Your task to perform on an android device: Go to notification settings Image 0: 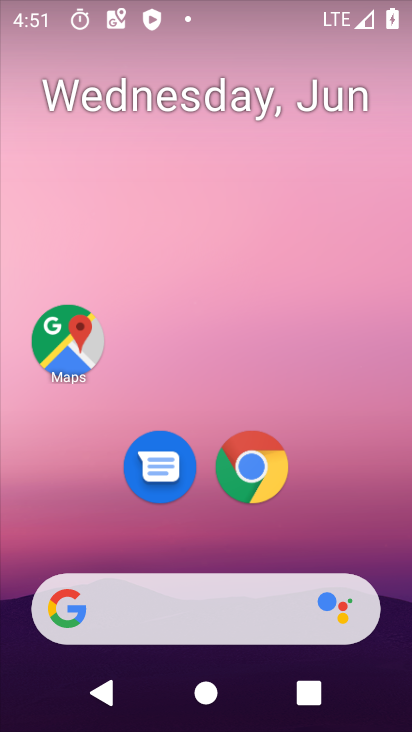
Step 0: drag from (311, 553) to (154, 73)
Your task to perform on an android device: Go to notification settings Image 1: 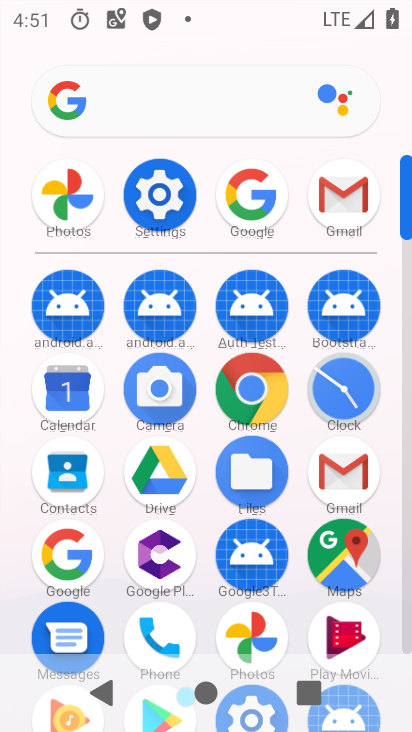
Step 1: click (167, 207)
Your task to perform on an android device: Go to notification settings Image 2: 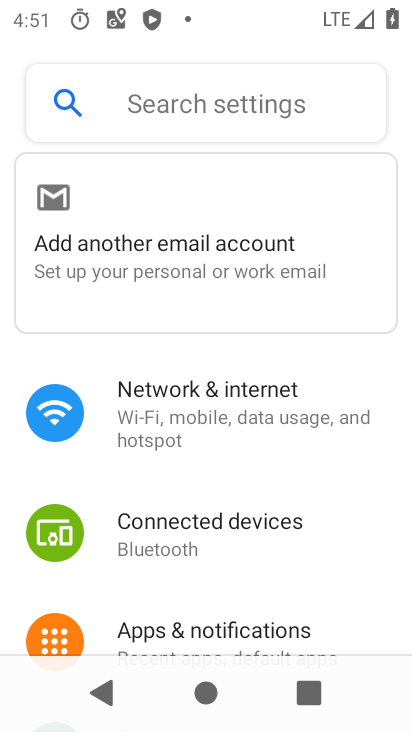
Step 2: click (220, 630)
Your task to perform on an android device: Go to notification settings Image 3: 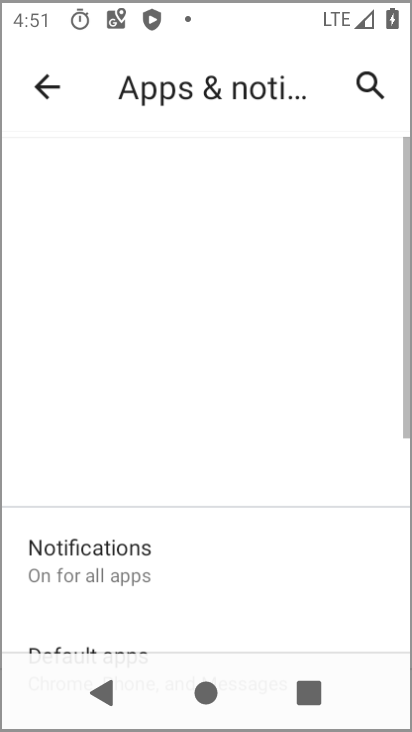
Step 3: task complete